Your task to perform on an android device: open app "Reddit" (install if not already installed) Image 0: 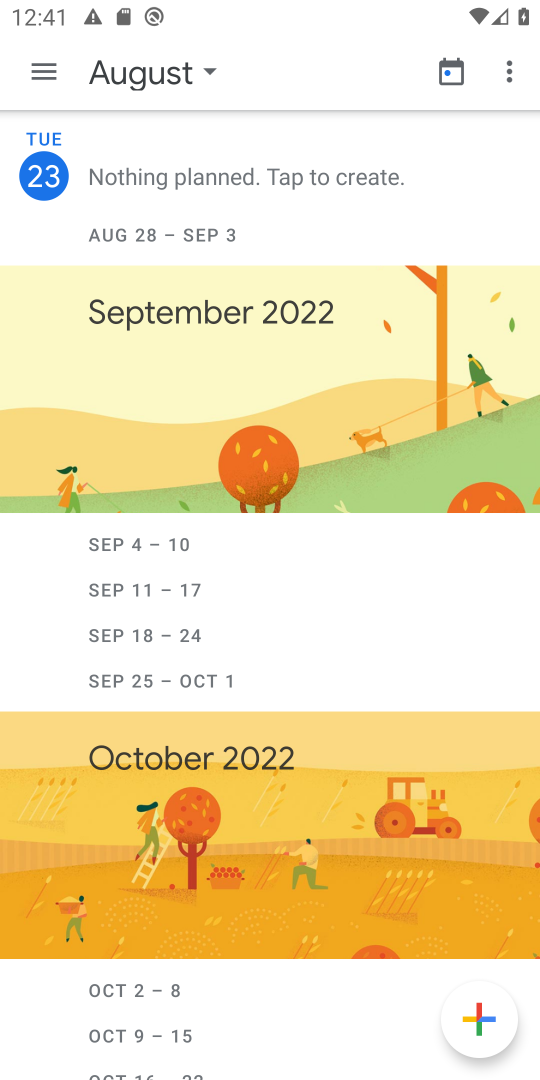
Step 0: press home button
Your task to perform on an android device: open app "Reddit" (install if not already installed) Image 1: 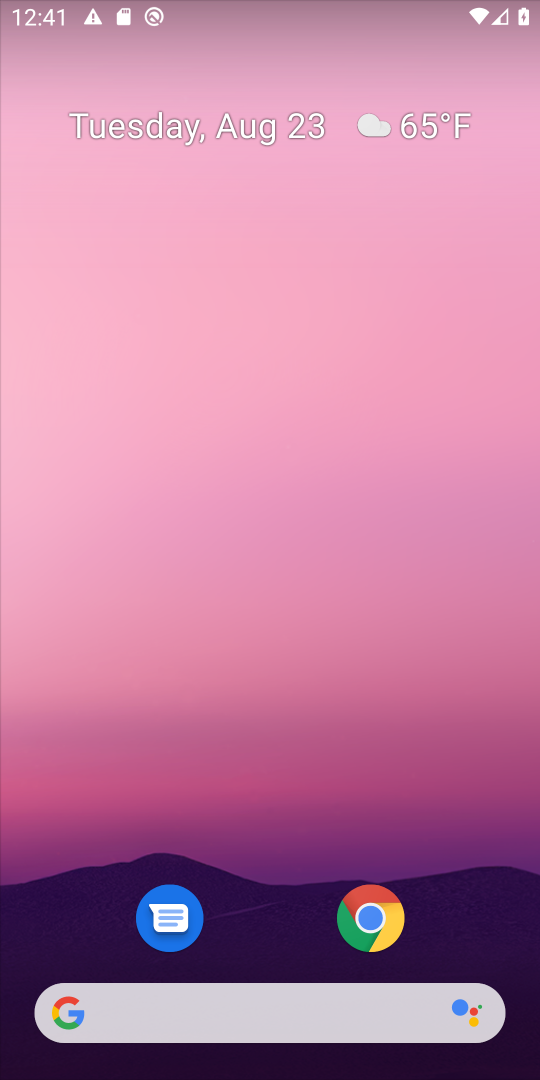
Step 1: drag from (287, 903) to (159, 29)
Your task to perform on an android device: open app "Reddit" (install if not already installed) Image 2: 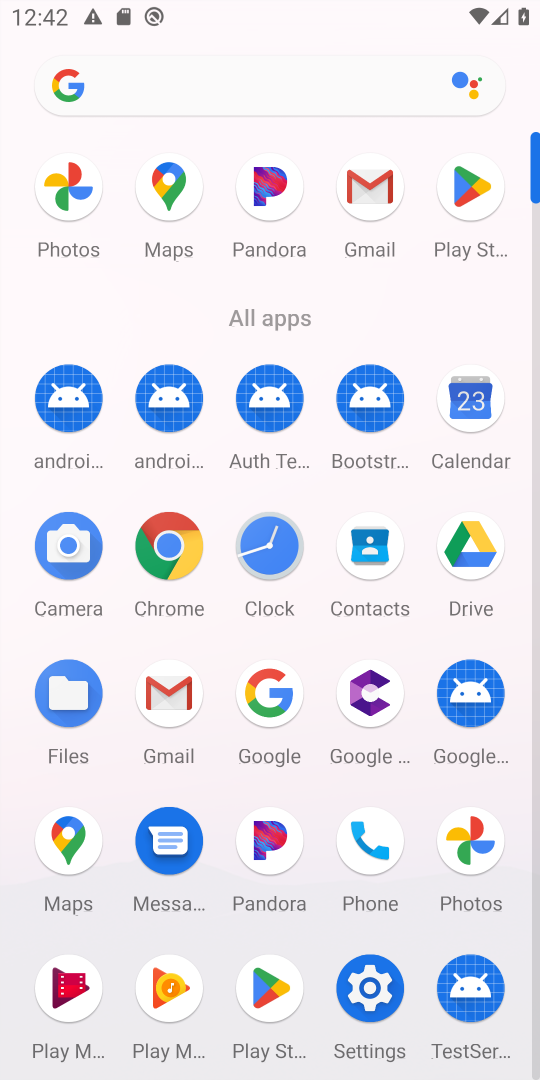
Step 2: click (478, 231)
Your task to perform on an android device: open app "Reddit" (install if not already installed) Image 3: 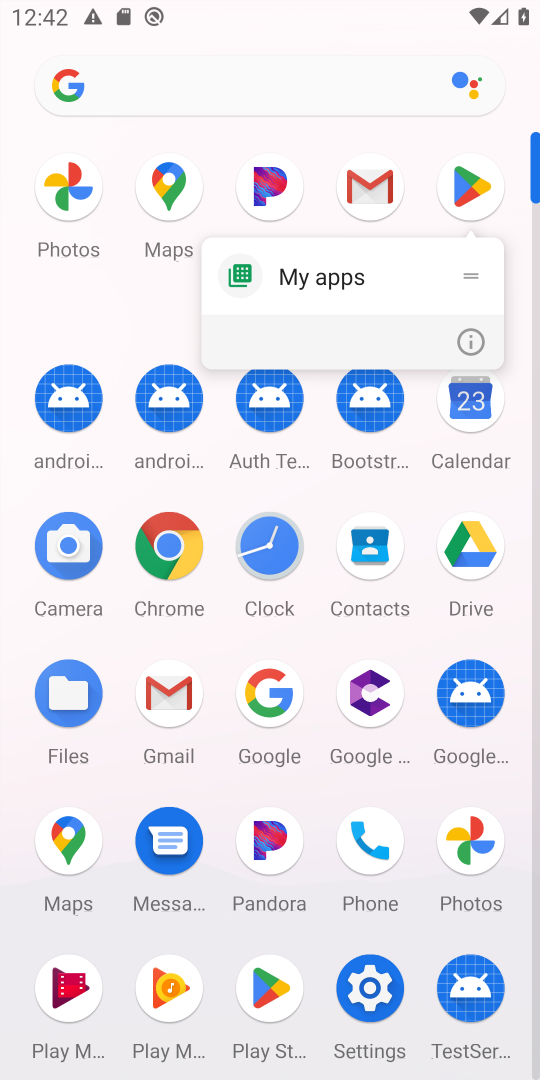
Step 3: click (463, 194)
Your task to perform on an android device: open app "Reddit" (install if not already installed) Image 4: 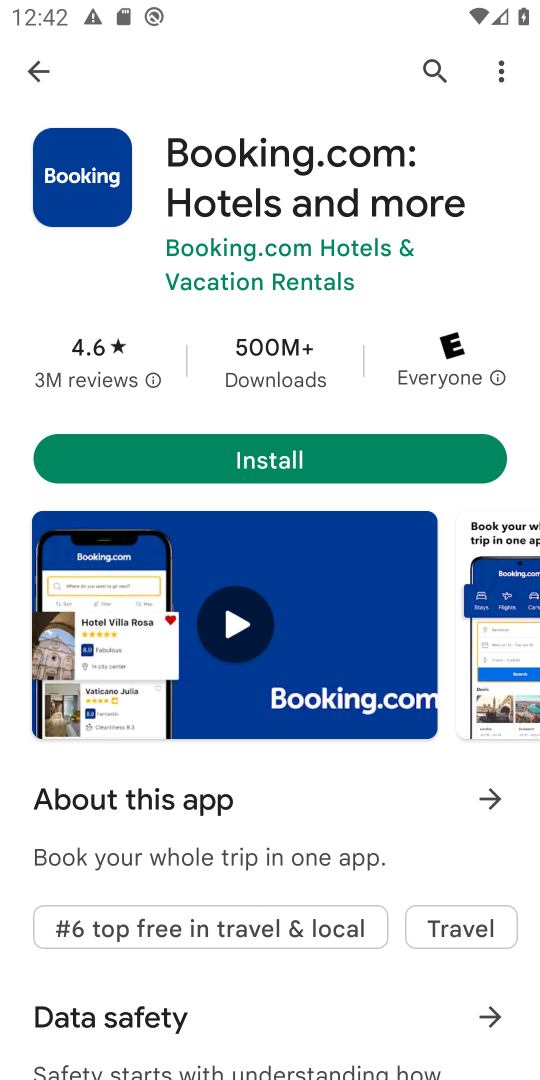
Step 4: click (426, 66)
Your task to perform on an android device: open app "Reddit" (install if not already installed) Image 5: 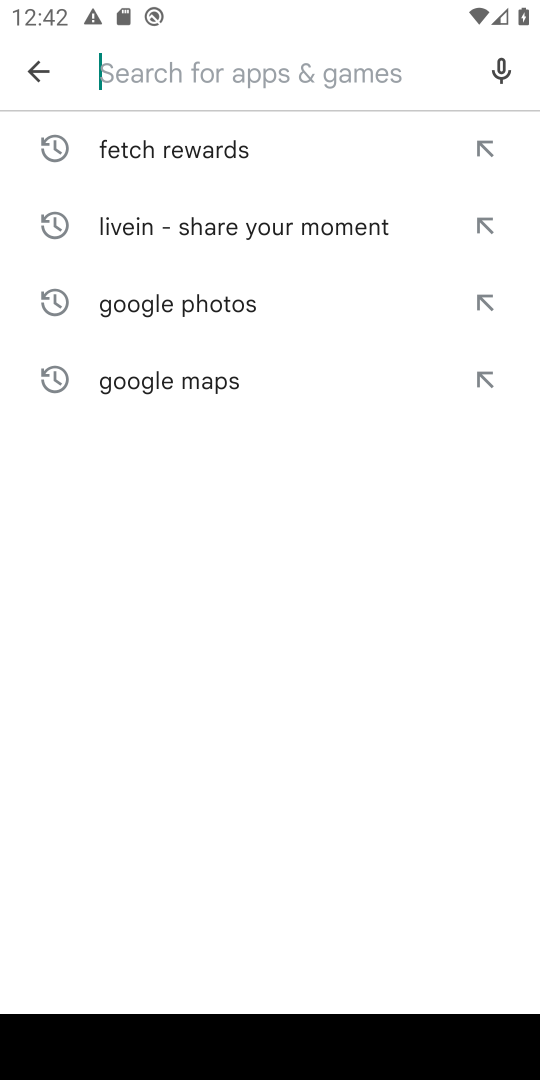
Step 5: type "Reddit"
Your task to perform on an android device: open app "Reddit" (install if not already installed) Image 6: 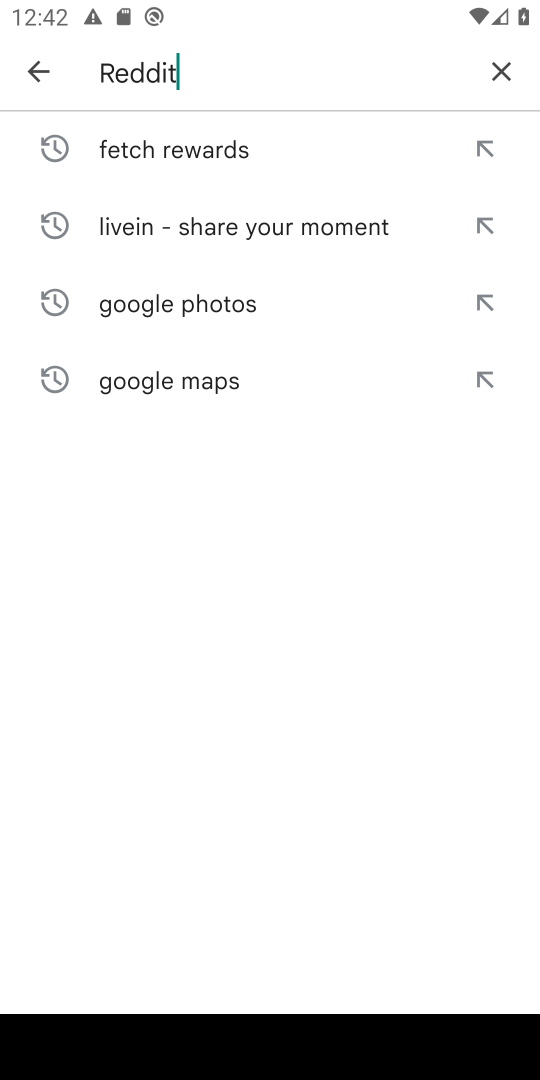
Step 6: type ""
Your task to perform on an android device: open app "Reddit" (install if not already installed) Image 7: 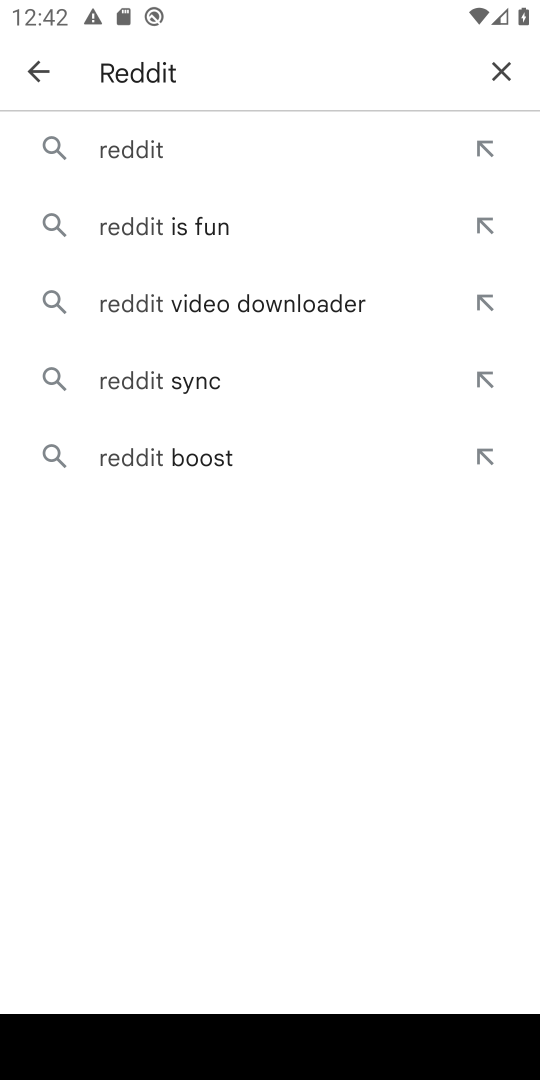
Step 7: click (182, 143)
Your task to perform on an android device: open app "Reddit" (install if not already installed) Image 8: 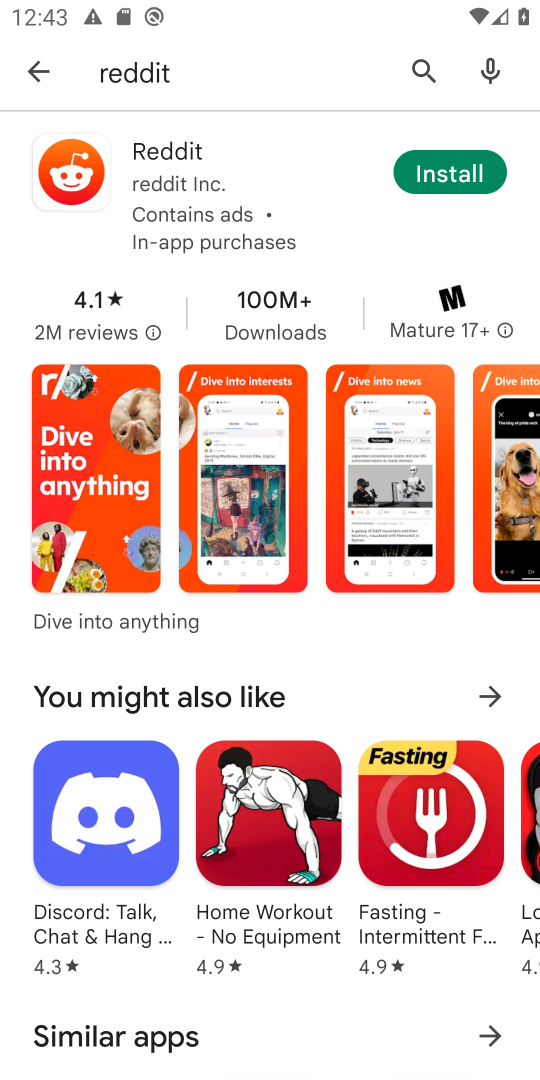
Step 8: click (467, 174)
Your task to perform on an android device: open app "Reddit" (install if not already installed) Image 9: 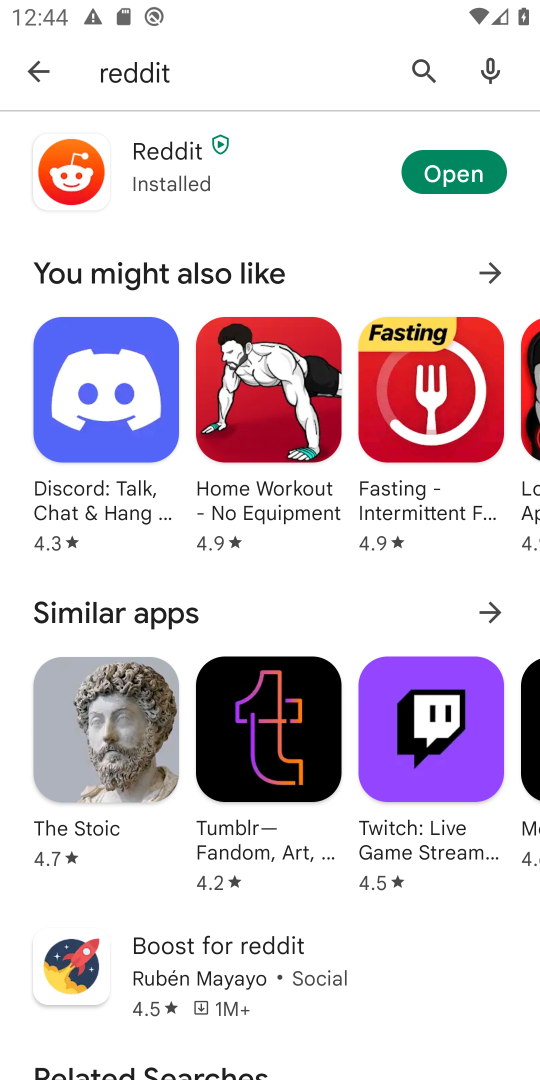
Step 9: click (427, 164)
Your task to perform on an android device: open app "Reddit" (install if not already installed) Image 10: 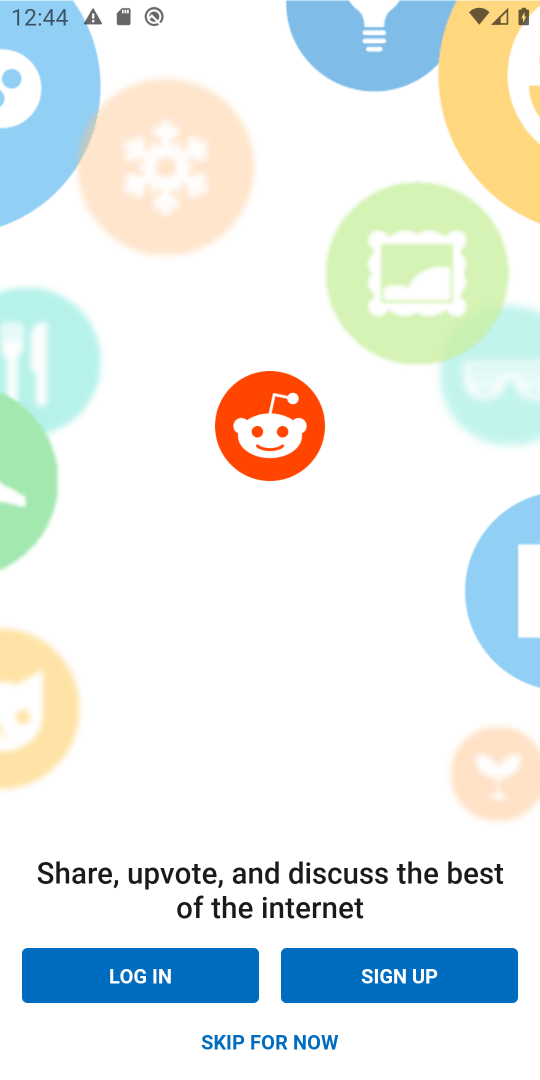
Step 10: click (281, 1037)
Your task to perform on an android device: open app "Reddit" (install if not already installed) Image 11: 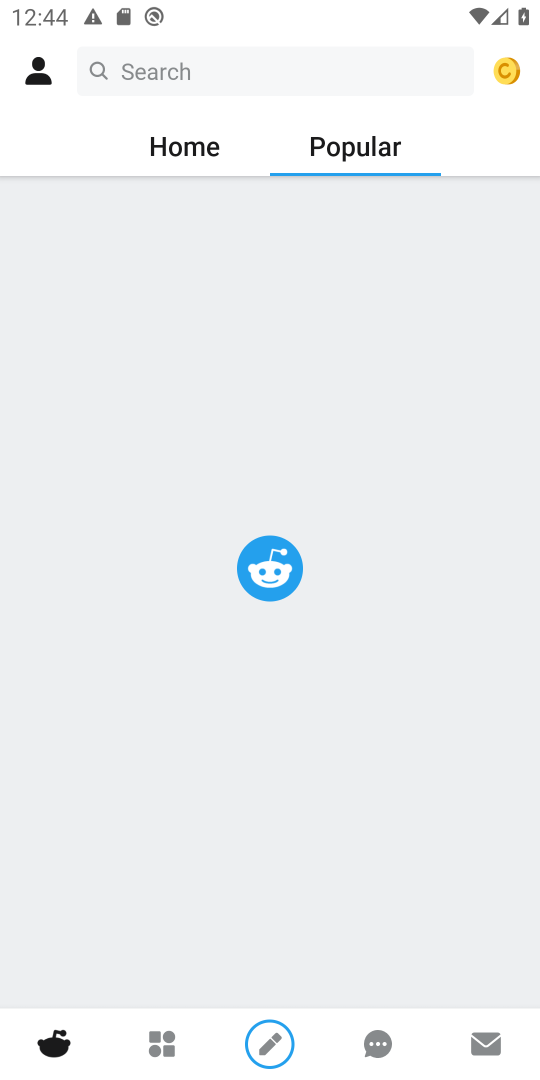
Step 11: task complete